Your task to perform on an android device: turn on translation in the chrome app Image 0: 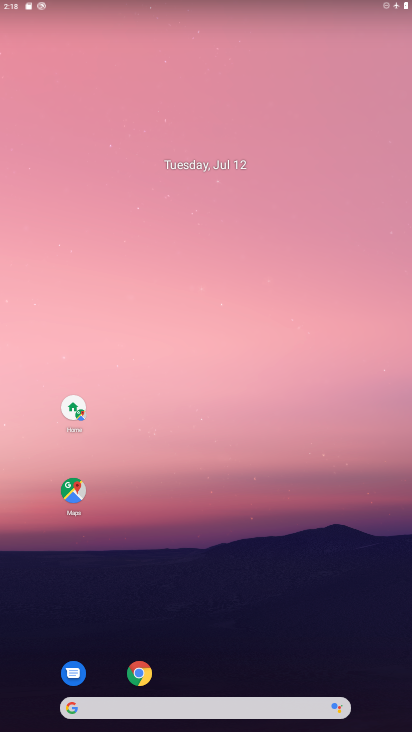
Step 0: drag from (259, 643) to (257, 152)
Your task to perform on an android device: turn on translation in the chrome app Image 1: 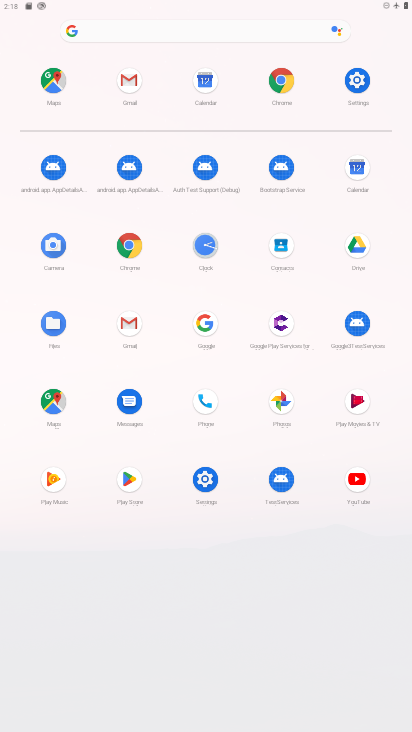
Step 1: click (289, 69)
Your task to perform on an android device: turn on translation in the chrome app Image 2: 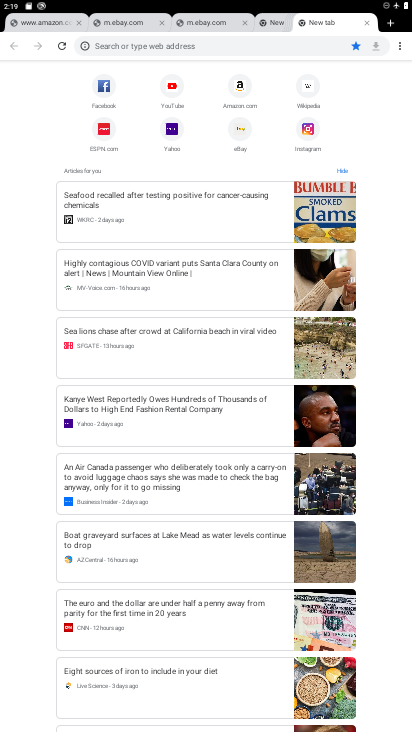
Step 2: click (406, 45)
Your task to perform on an android device: turn on translation in the chrome app Image 3: 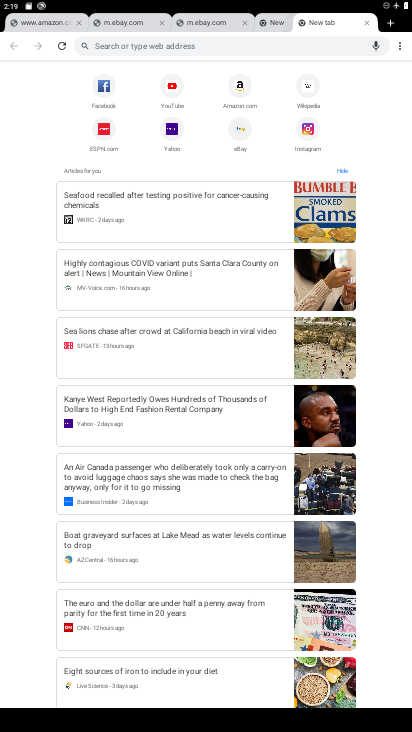
Step 3: click (406, 45)
Your task to perform on an android device: turn on translation in the chrome app Image 4: 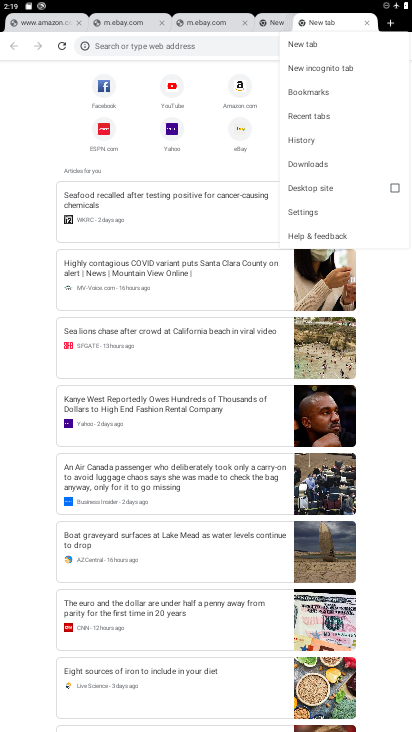
Step 4: click (300, 216)
Your task to perform on an android device: turn on translation in the chrome app Image 5: 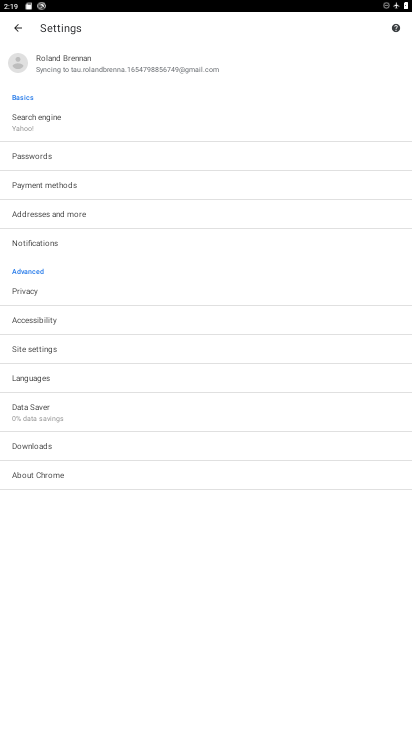
Step 5: click (90, 373)
Your task to perform on an android device: turn on translation in the chrome app Image 6: 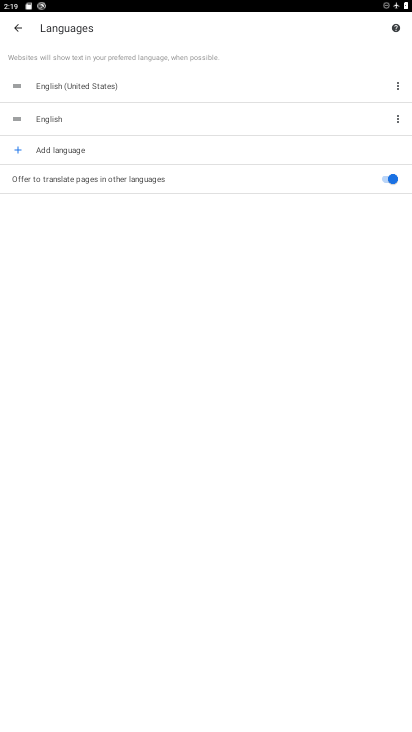
Step 6: task complete